Your task to perform on an android device: change text size in settings app Image 0: 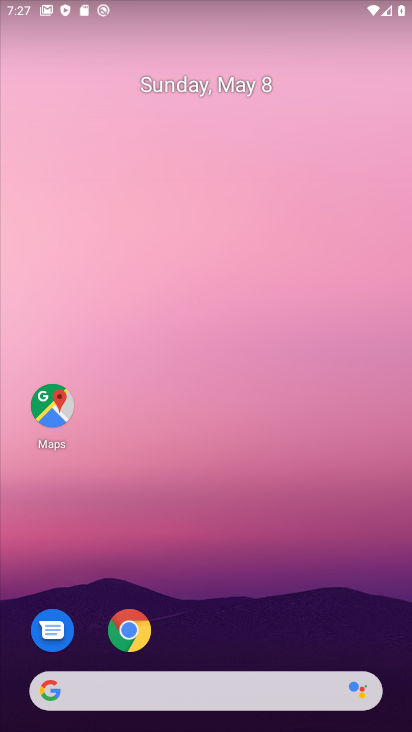
Step 0: drag from (250, 639) to (253, 108)
Your task to perform on an android device: change text size in settings app Image 1: 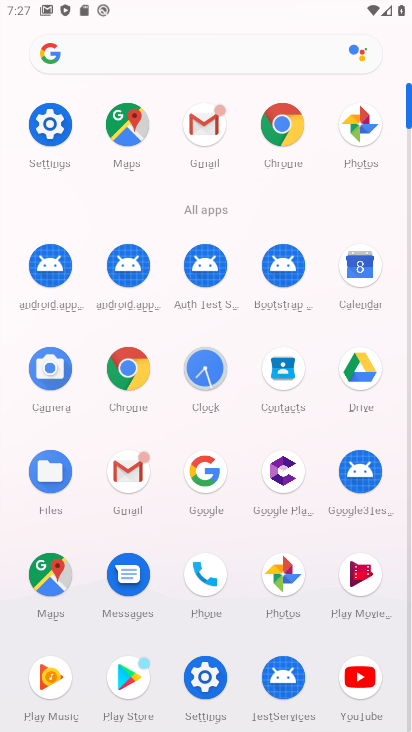
Step 1: click (30, 126)
Your task to perform on an android device: change text size in settings app Image 2: 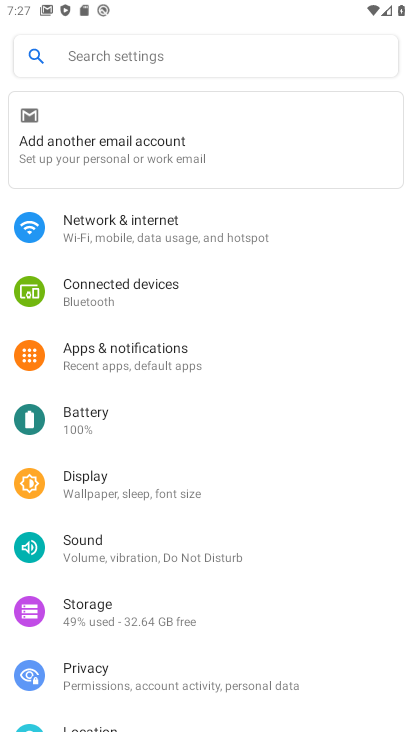
Step 2: click (169, 506)
Your task to perform on an android device: change text size in settings app Image 3: 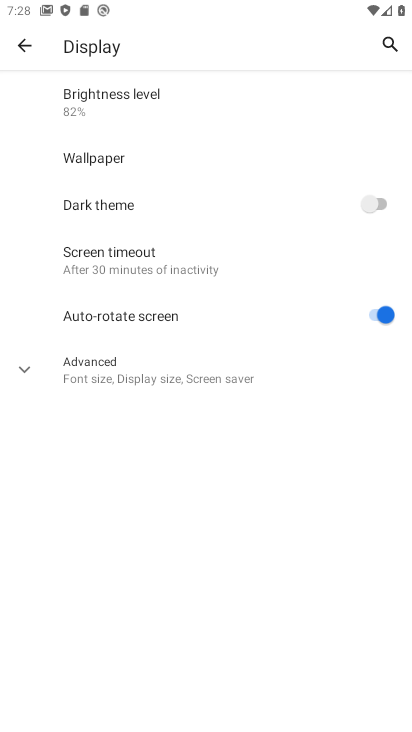
Step 3: click (116, 371)
Your task to perform on an android device: change text size in settings app Image 4: 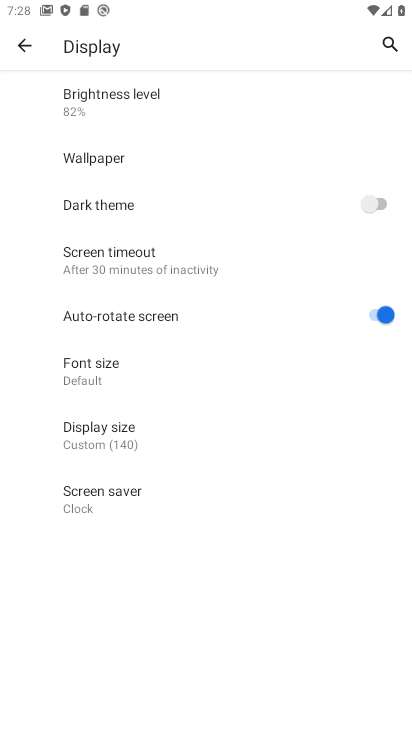
Step 4: click (133, 381)
Your task to perform on an android device: change text size in settings app Image 5: 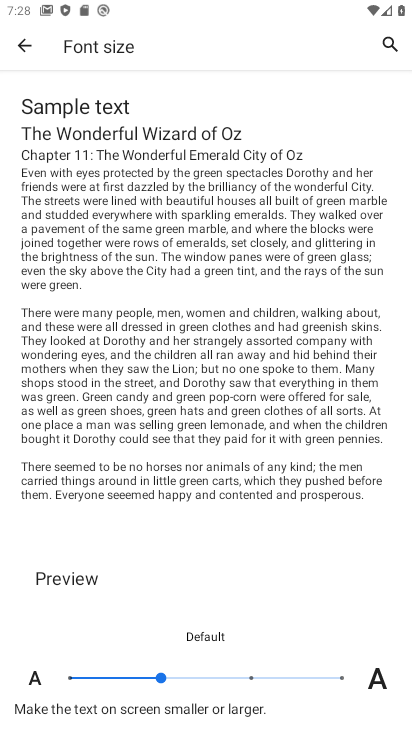
Step 5: click (222, 674)
Your task to perform on an android device: change text size in settings app Image 6: 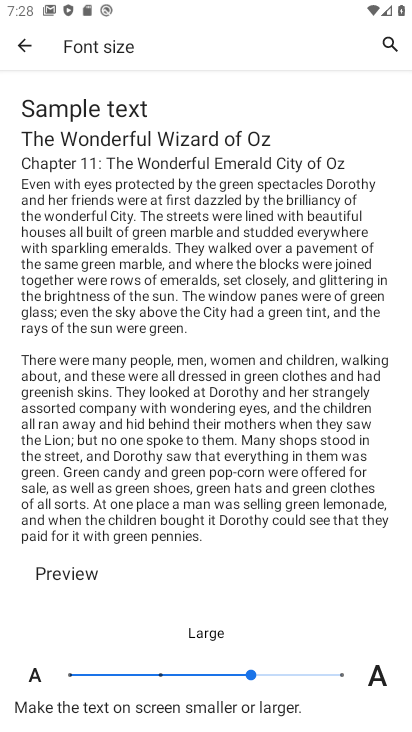
Step 6: task complete